Your task to perform on an android device: Go to Wikipedia Image 0: 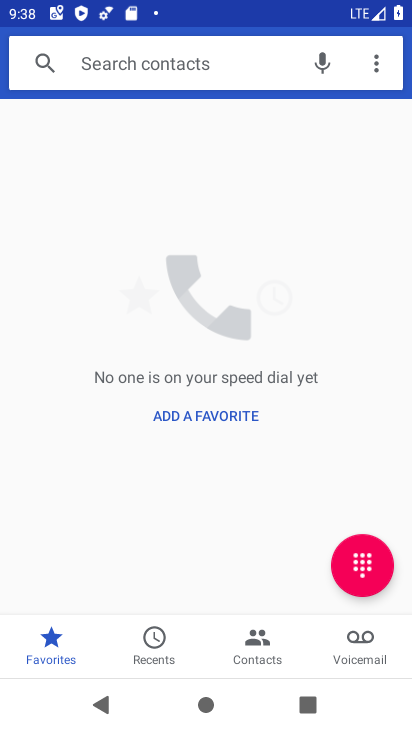
Step 0: press home button
Your task to perform on an android device: Go to Wikipedia Image 1: 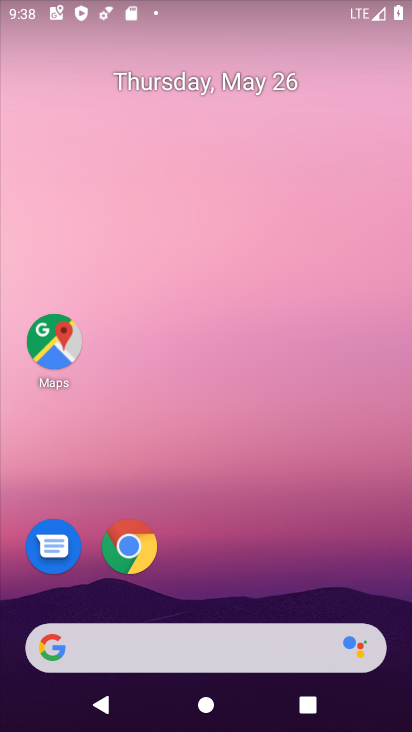
Step 1: drag from (366, 564) to (371, 147)
Your task to perform on an android device: Go to Wikipedia Image 2: 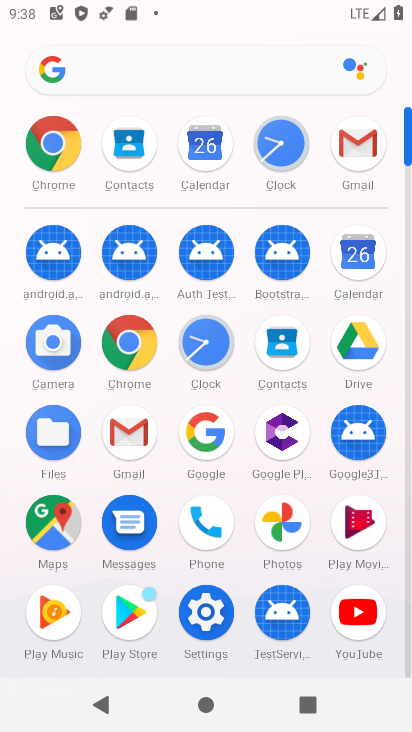
Step 2: click (112, 344)
Your task to perform on an android device: Go to Wikipedia Image 3: 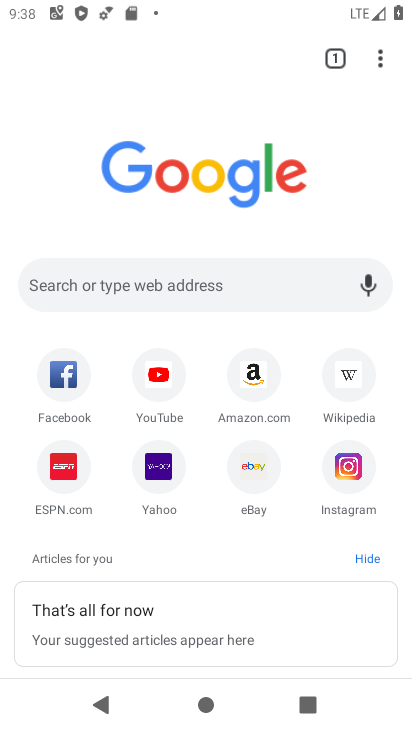
Step 3: click (169, 291)
Your task to perform on an android device: Go to Wikipedia Image 4: 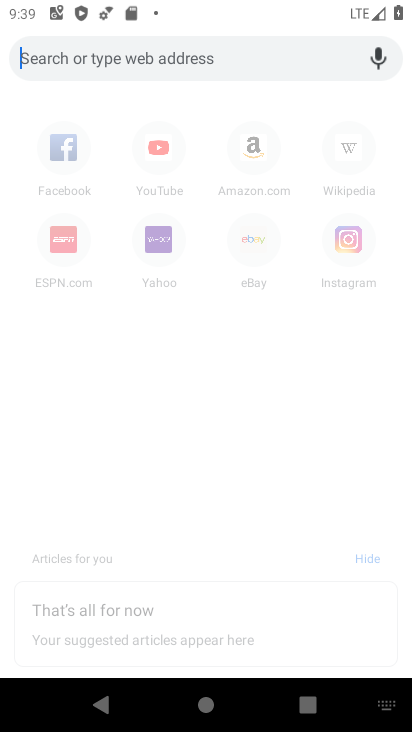
Step 4: type "wikipedia"
Your task to perform on an android device: Go to Wikipedia Image 5: 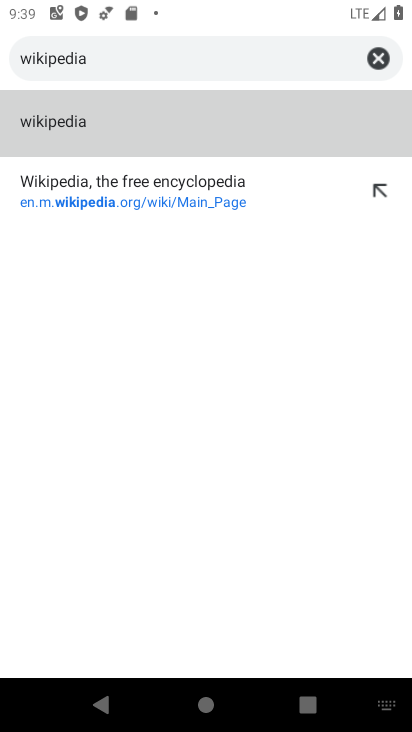
Step 5: click (138, 138)
Your task to perform on an android device: Go to Wikipedia Image 6: 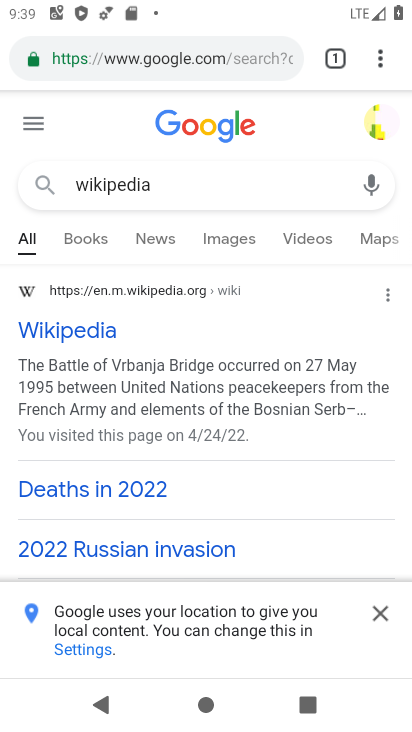
Step 6: click (89, 326)
Your task to perform on an android device: Go to Wikipedia Image 7: 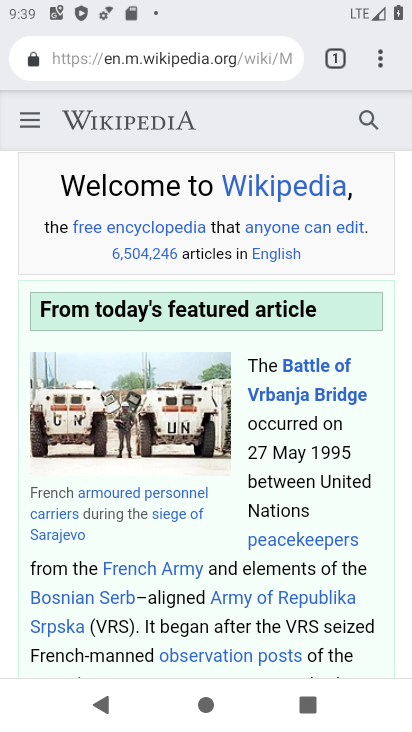
Step 7: task complete